Your task to perform on an android device: visit the assistant section in the google photos Image 0: 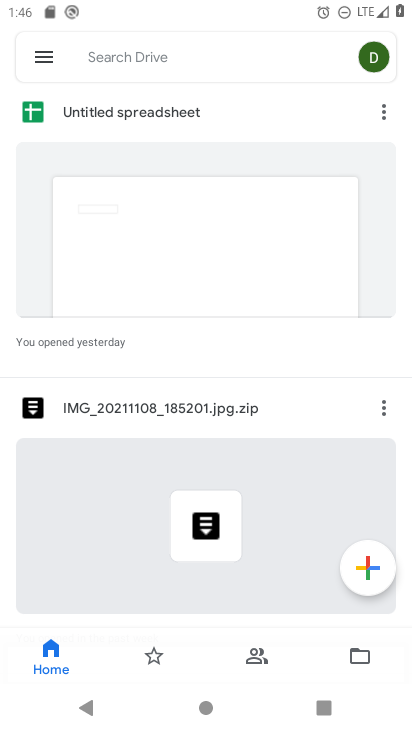
Step 0: press home button
Your task to perform on an android device: visit the assistant section in the google photos Image 1: 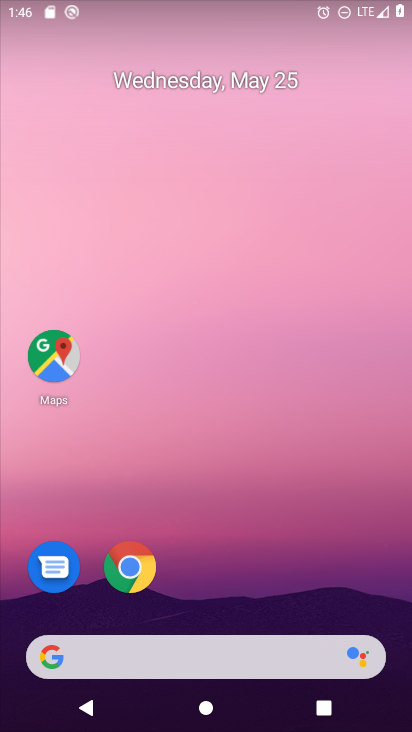
Step 1: drag from (373, 448) to (353, 214)
Your task to perform on an android device: visit the assistant section in the google photos Image 2: 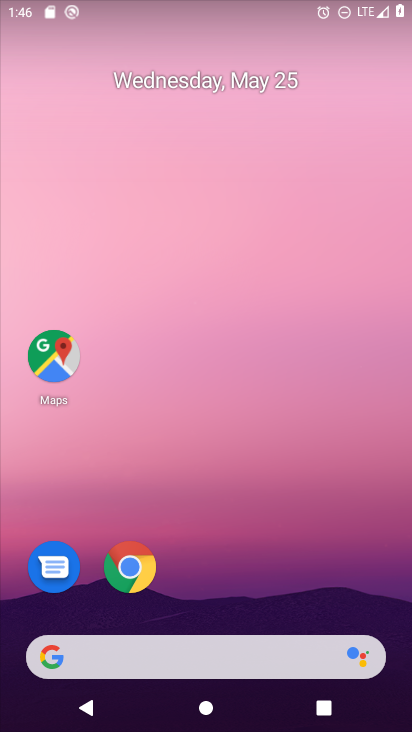
Step 2: drag from (395, 659) to (385, 157)
Your task to perform on an android device: visit the assistant section in the google photos Image 3: 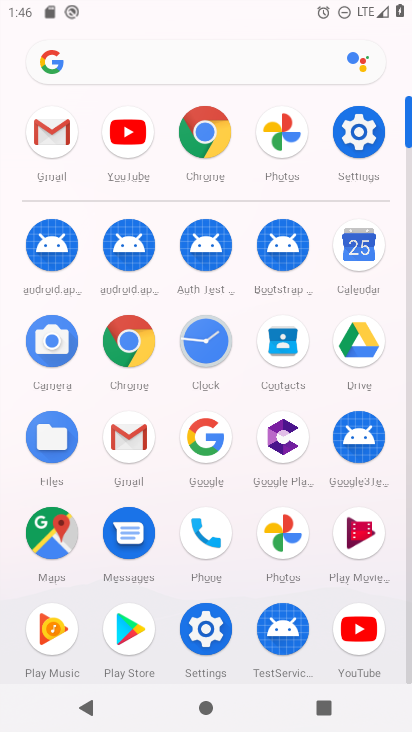
Step 3: click (277, 534)
Your task to perform on an android device: visit the assistant section in the google photos Image 4: 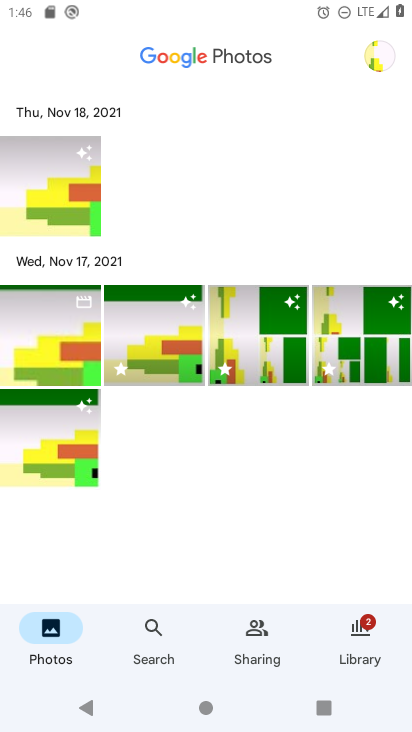
Step 4: task complete